Your task to perform on an android device: turn off location history Image 0: 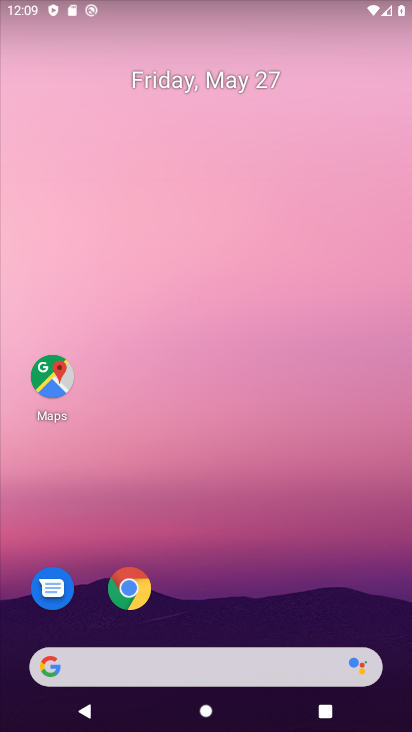
Step 0: drag from (203, 619) to (242, 45)
Your task to perform on an android device: turn off location history Image 1: 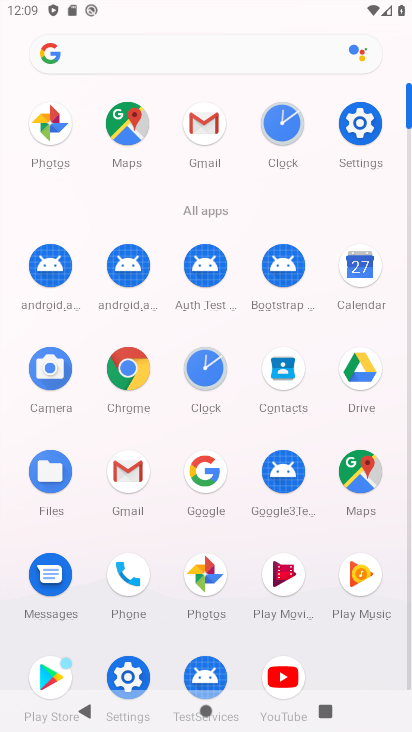
Step 1: click (359, 120)
Your task to perform on an android device: turn off location history Image 2: 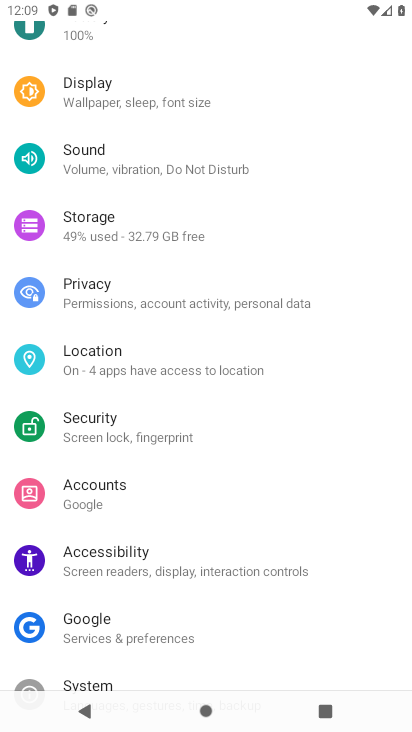
Step 2: click (138, 358)
Your task to perform on an android device: turn off location history Image 3: 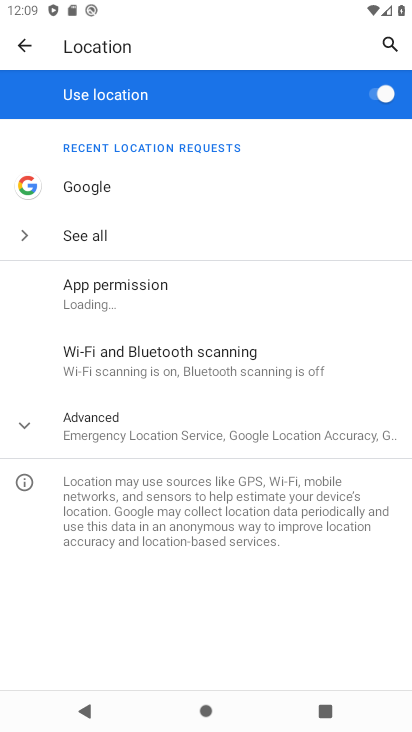
Step 3: click (23, 421)
Your task to perform on an android device: turn off location history Image 4: 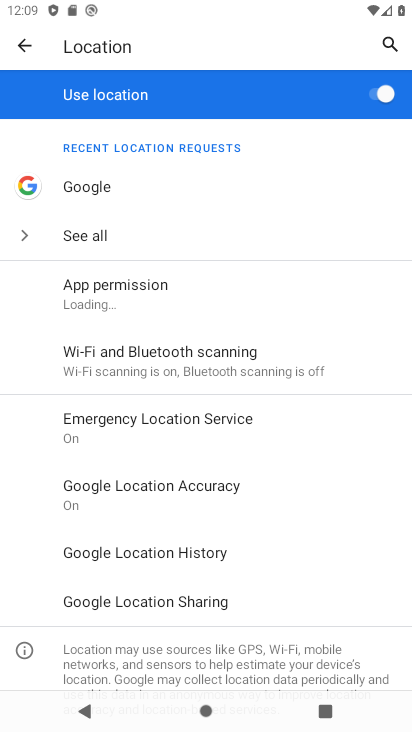
Step 4: click (174, 552)
Your task to perform on an android device: turn off location history Image 5: 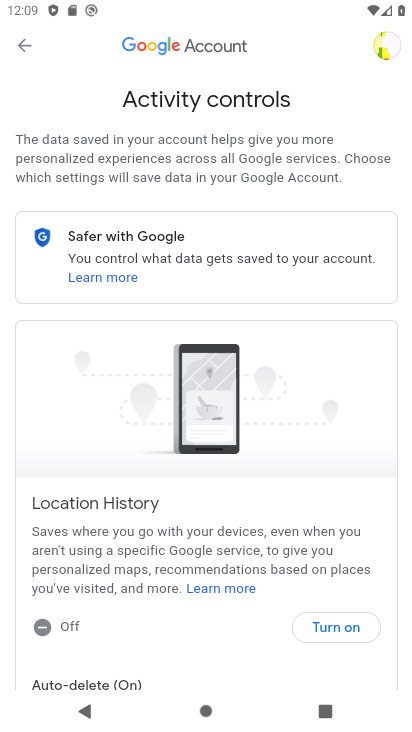
Step 5: task complete